Your task to perform on an android device: turn off data saver in the chrome app Image 0: 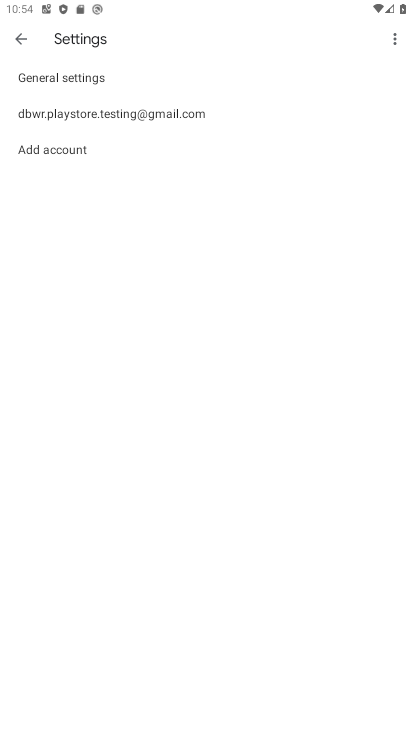
Step 0: press home button
Your task to perform on an android device: turn off data saver in the chrome app Image 1: 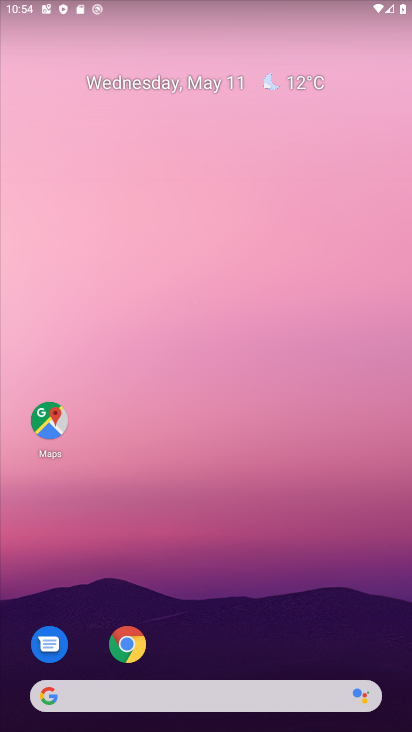
Step 1: drag from (303, 573) to (280, 95)
Your task to perform on an android device: turn off data saver in the chrome app Image 2: 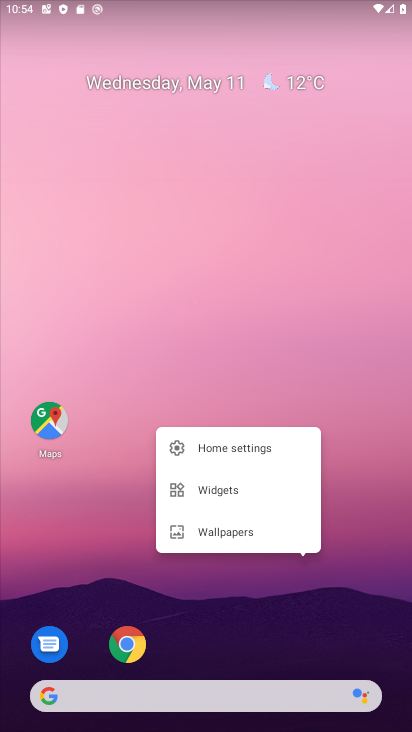
Step 2: click (355, 602)
Your task to perform on an android device: turn off data saver in the chrome app Image 3: 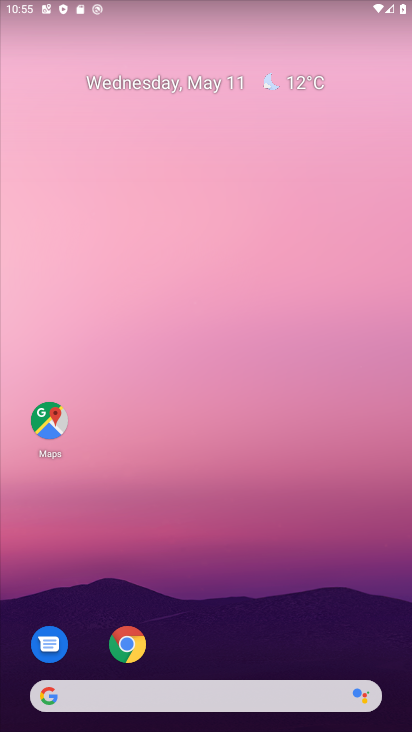
Step 3: drag from (325, 630) to (328, 238)
Your task to perform on an android device: turn off data saver in the chrome app Image 4: 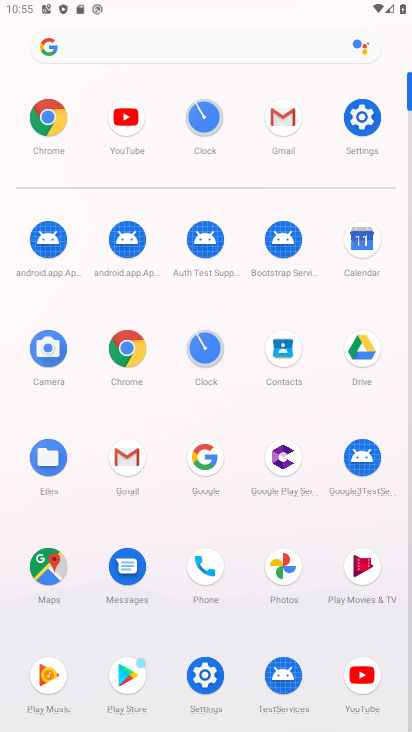
Step 4: click (49, 125)
Your task to perform on an android device: turn off data saver in the chrome app Image 5: 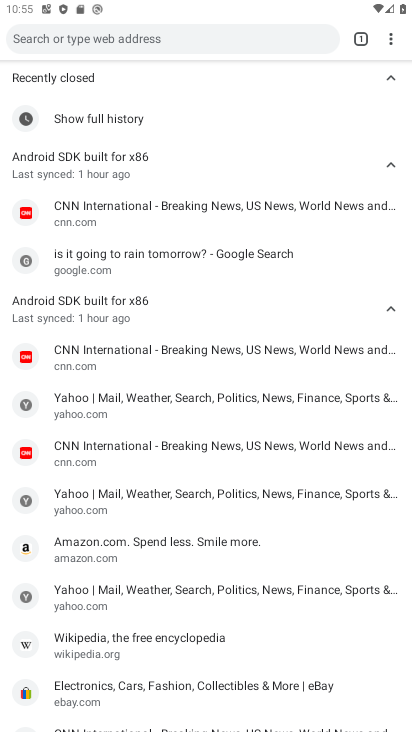
Step 5: click (389, 47)
Your task to perform on an android device: turn off data saver in the chrome app Image 6: 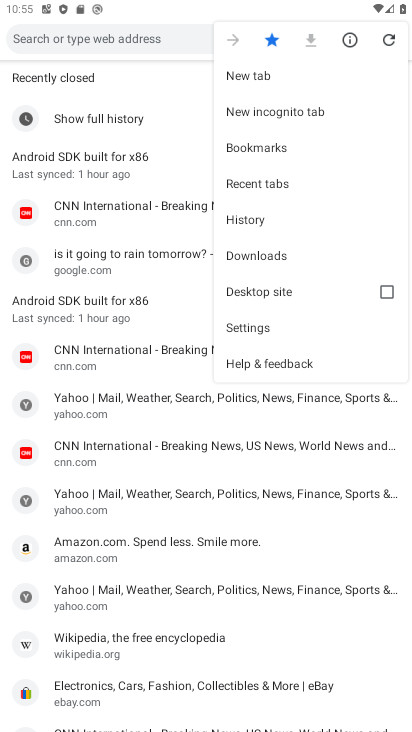
Step 6: click (280, 336)
Your task to perform on an android device: turn off data saver in the chrome app Image 7: 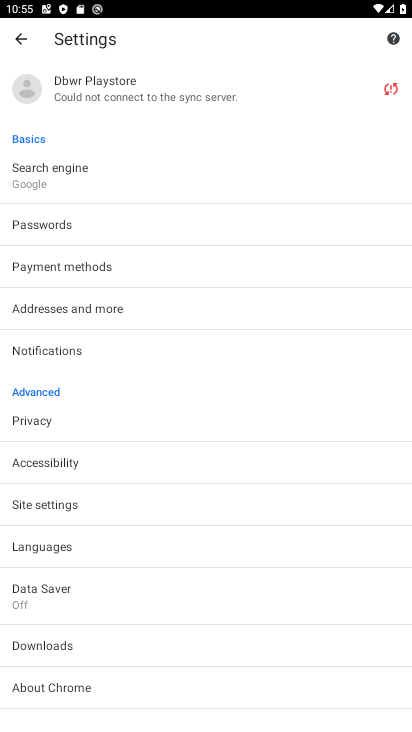
Step 7: click (92, 604)
Your task to perform on an android device: turn off data saver in the chrome app Image 8: 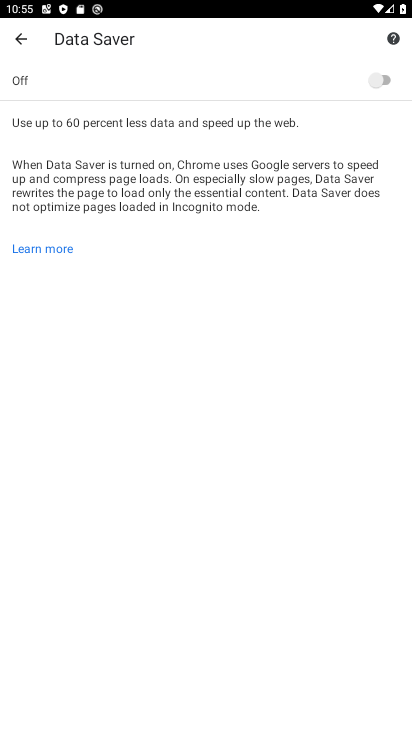
Step 8: task complete